Your task to perform on an android device: Open display settings Image 0: 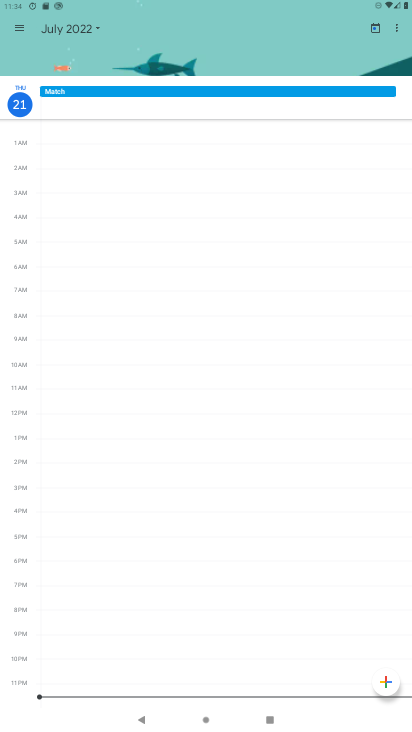
Step 0: press home button
Your task to perform on an android device: Open display settings Image 1: 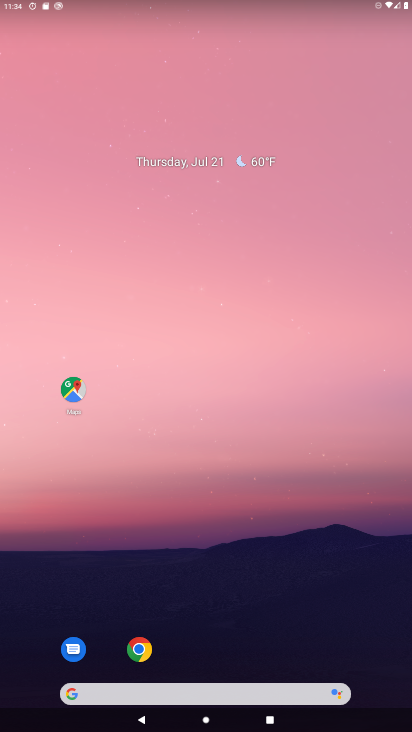
Step 1: drag from (397, 687) to (325, 52)
Your task to perform on an android device: Open display settings Image 2: 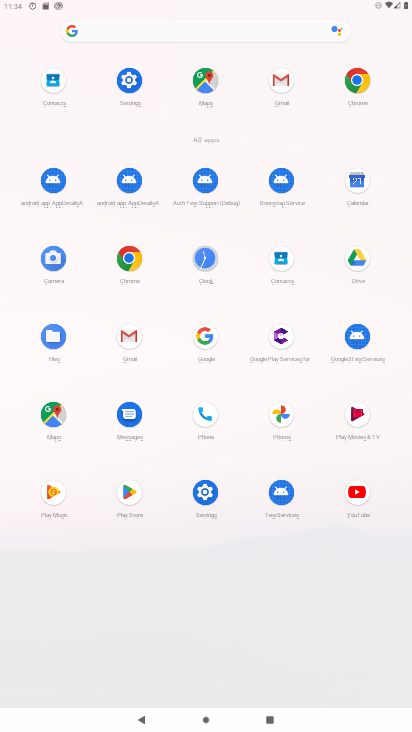
Step 2: click (134, 80)
Your task to perform on an android device: Open display settings Image 3: 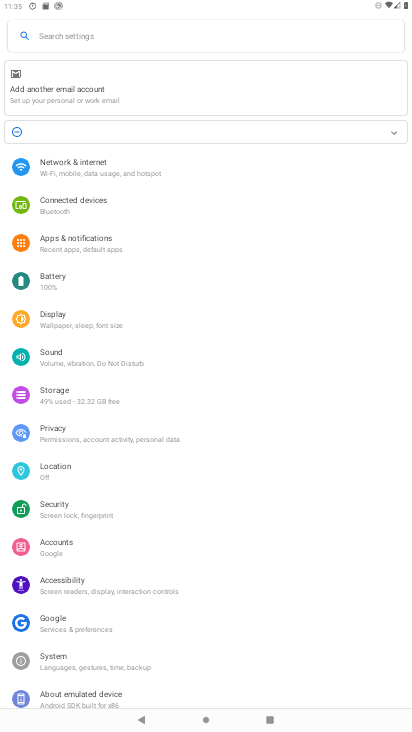
Step 3: click (55, 318)
Your task to perform on an android device: Open display settings Image 4: 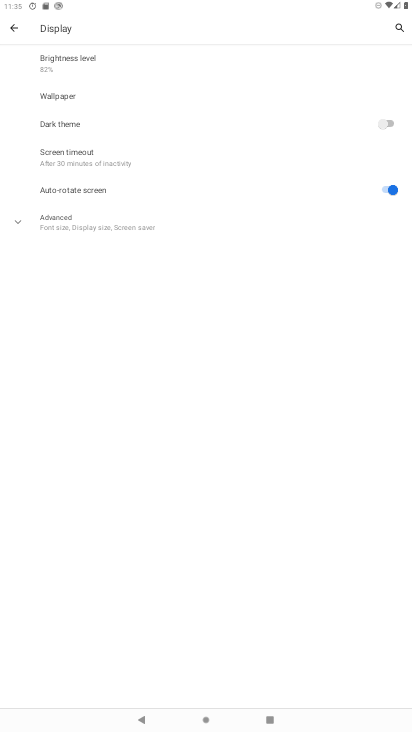
Step 4: click (19, 224)
Your task to perform on an android device: Open display settings Image 5: 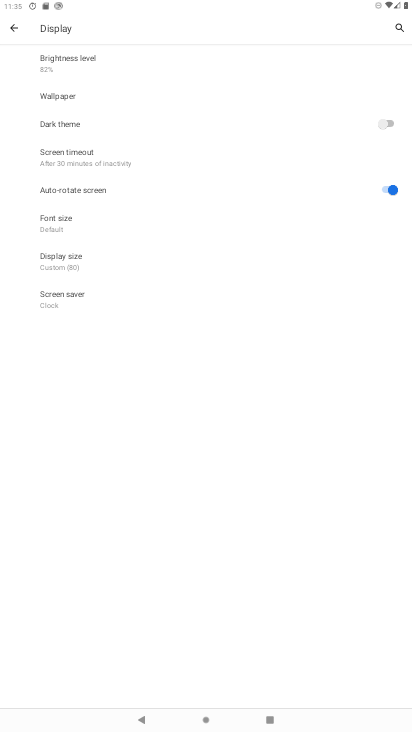
Step 5: task complete